Your task to perform on an android device: Open Google Image 0: 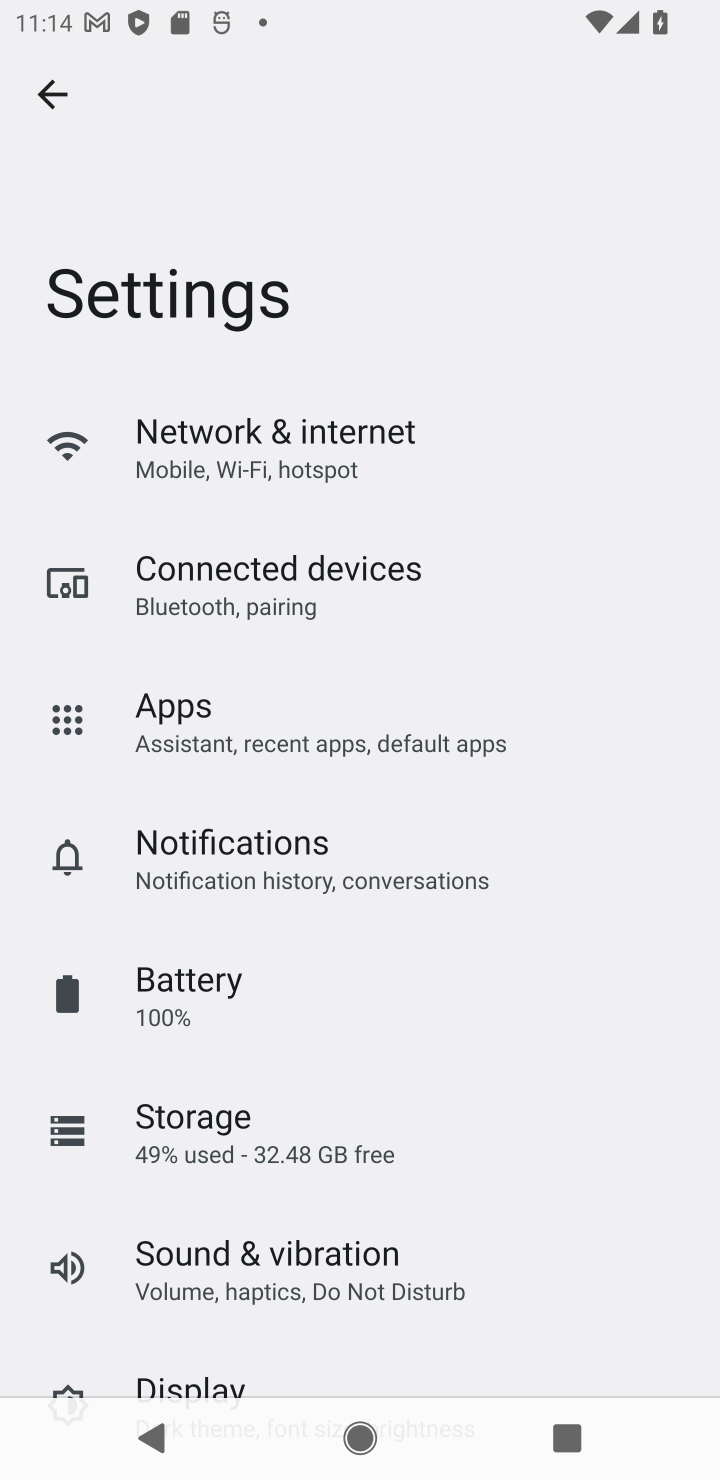
Step 0: press home button
Your task to perform on an android device: Open Google Image 1: 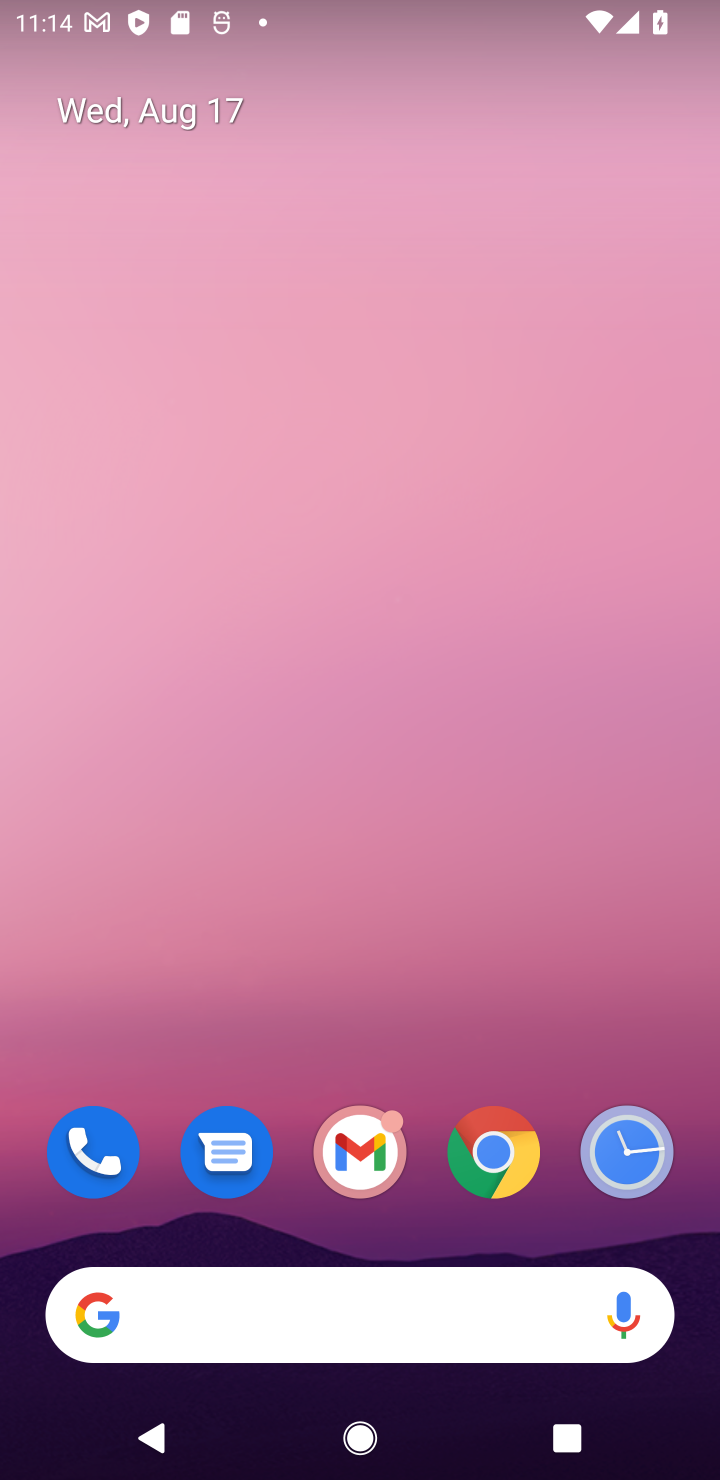
Step 1: drag from (554, 1149) to (455, 70)
Your task to perform on an android device: Open Google Image 2: 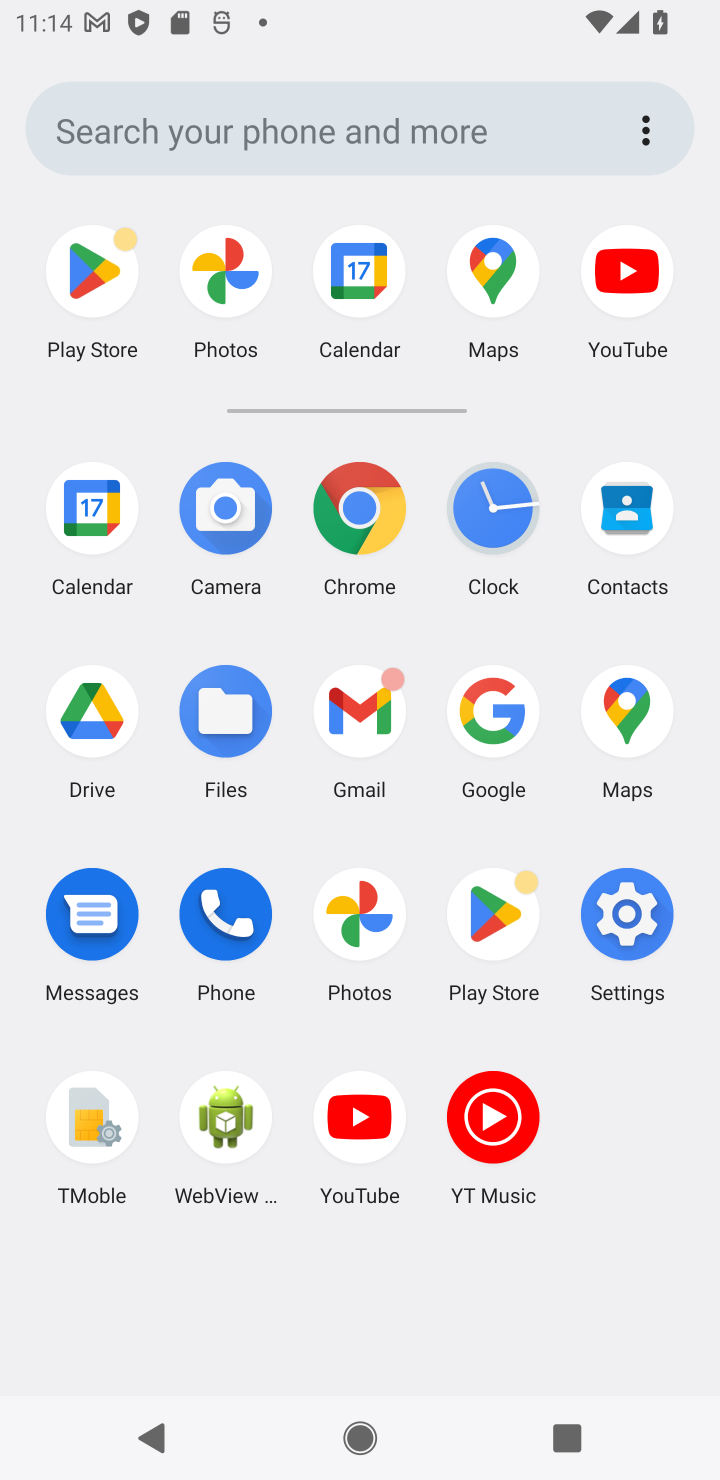
Step 2: click (504, 715)
Your task to perform on an android device: Open Google Image 3: 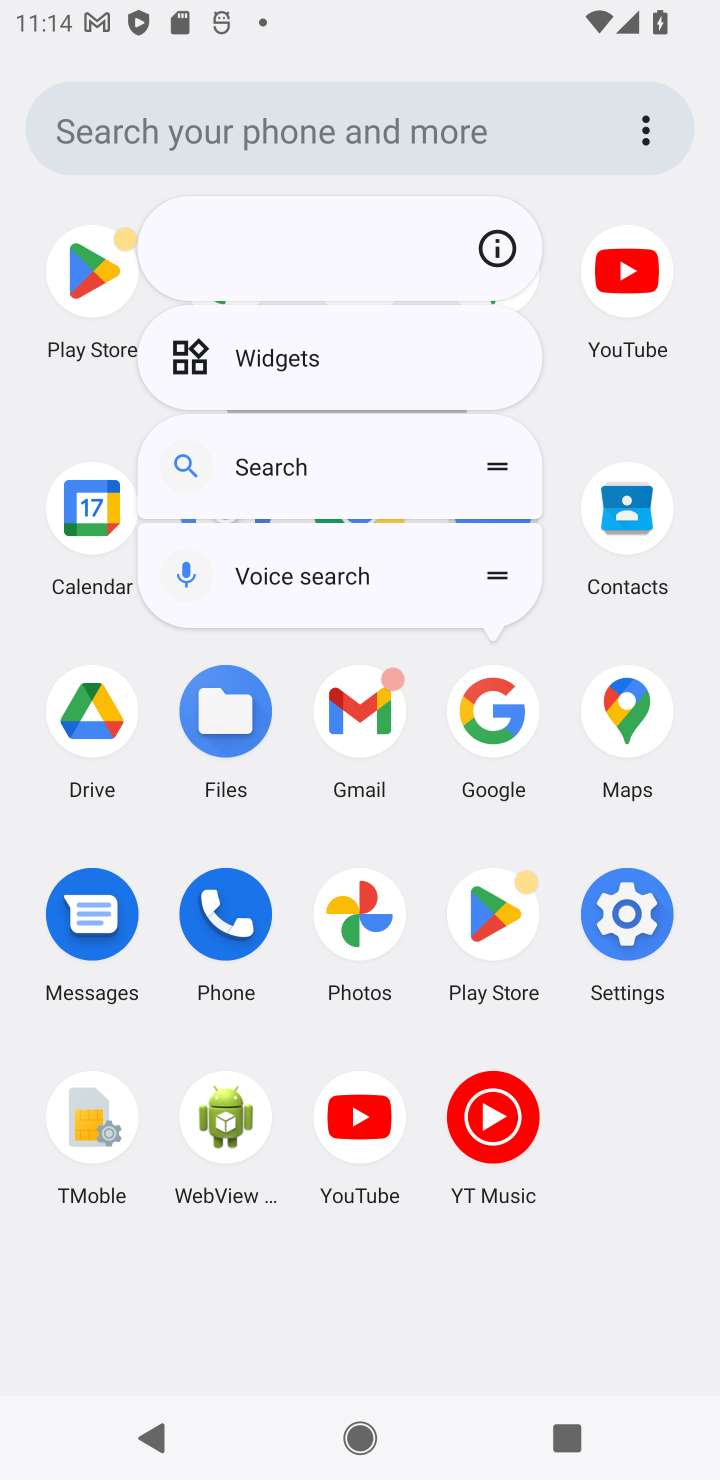
Step 3: click (504, 715)
Your task to perform on an android device: Open Google Image 4: 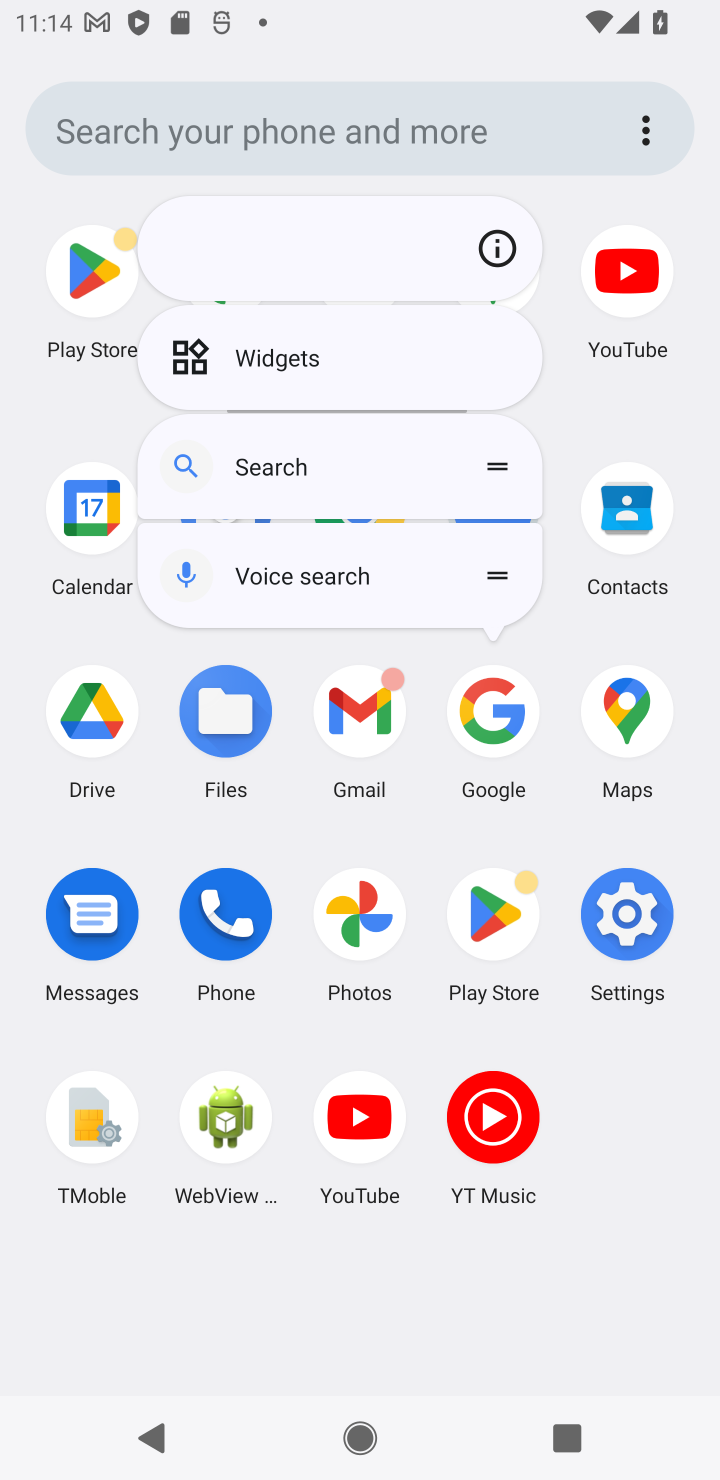
Step 4: click (504, 715)
Your task to perform on an android device: Open Google Image 5: 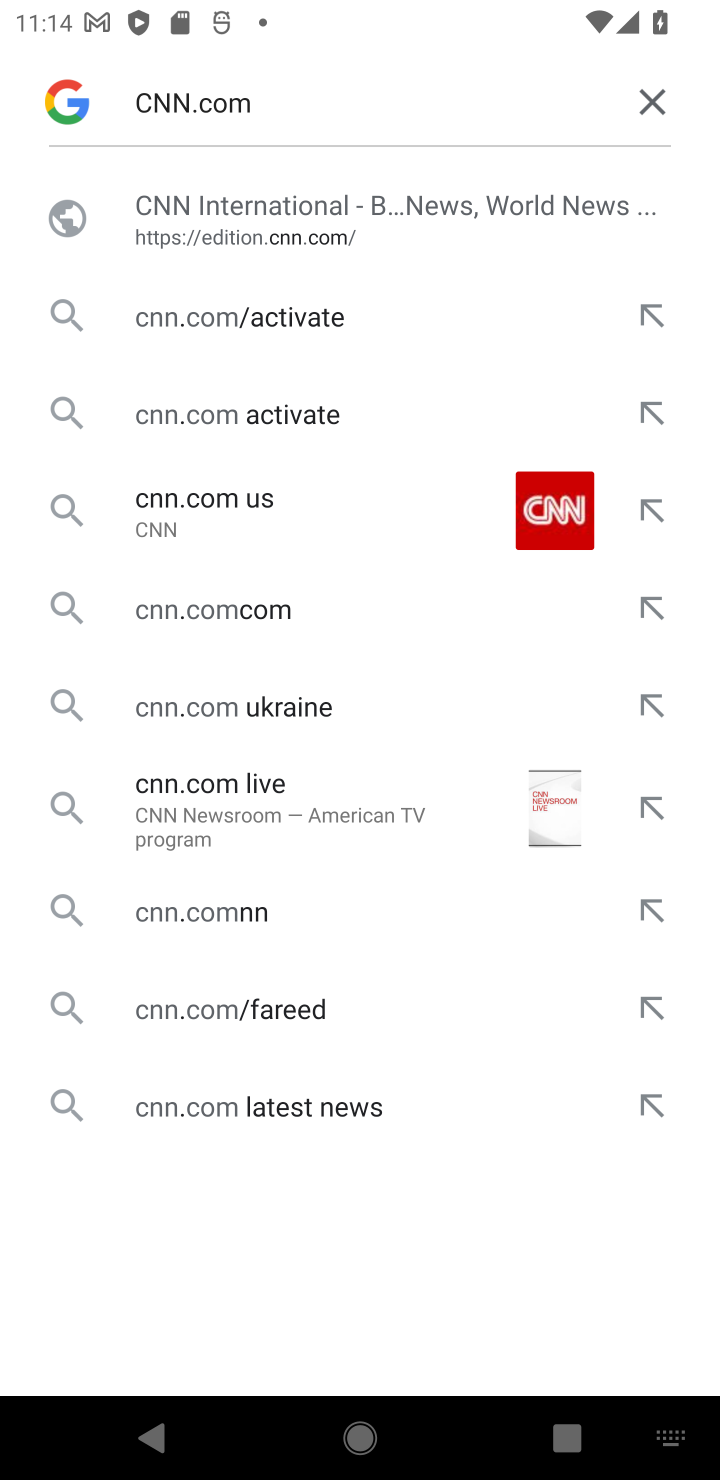
Step 5: click (651, 114)
Your task to perform on an android device: Open Google Image 6: 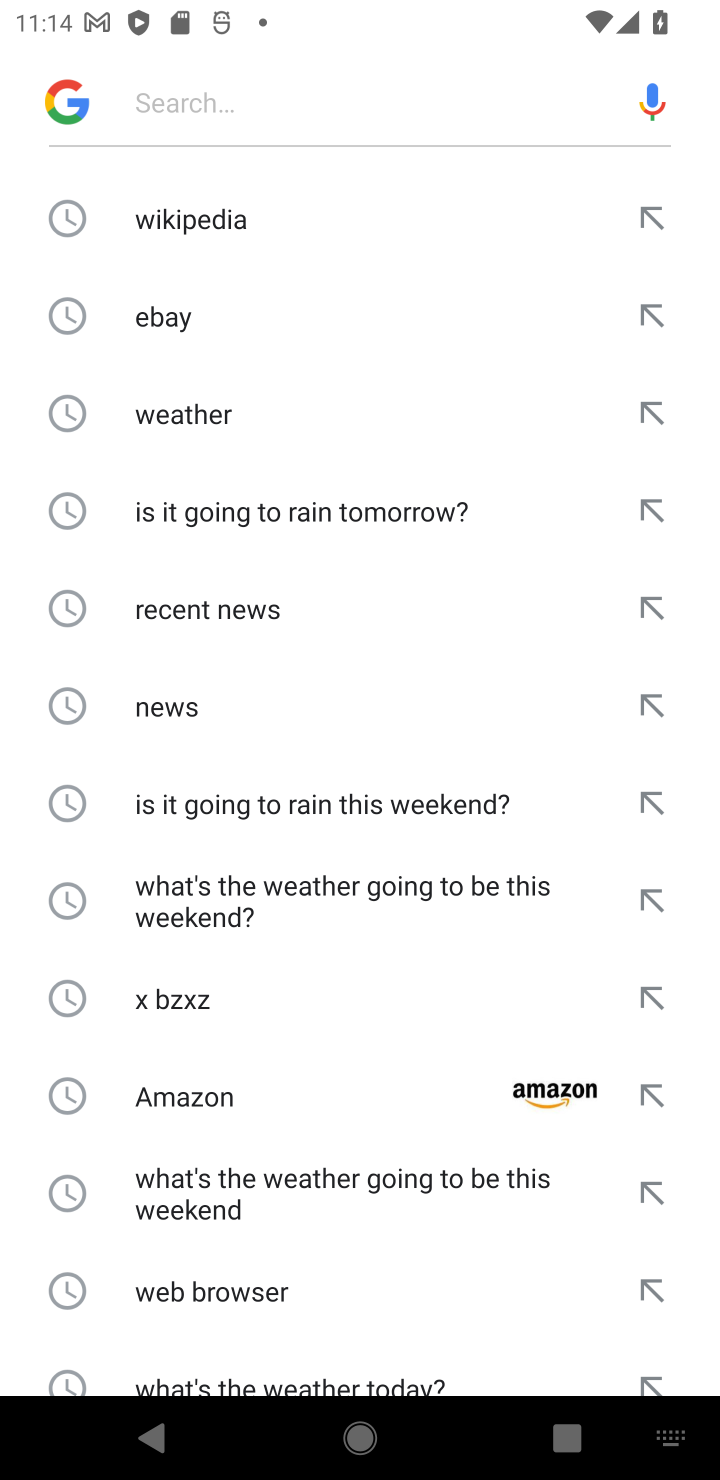
Step 6: task complete